Your task to perform on an android device: empty trash in the gmail app Image 0: 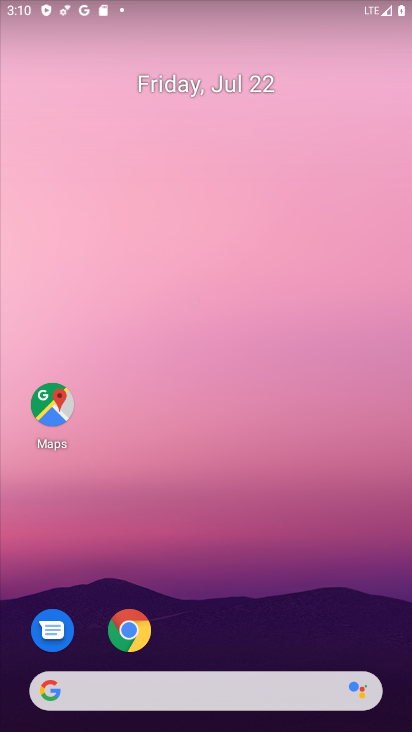
Step 0: drag from (193, 697) to (166, 337)
Your task to perform on an android device: empty trash in the gmail app Image 1: 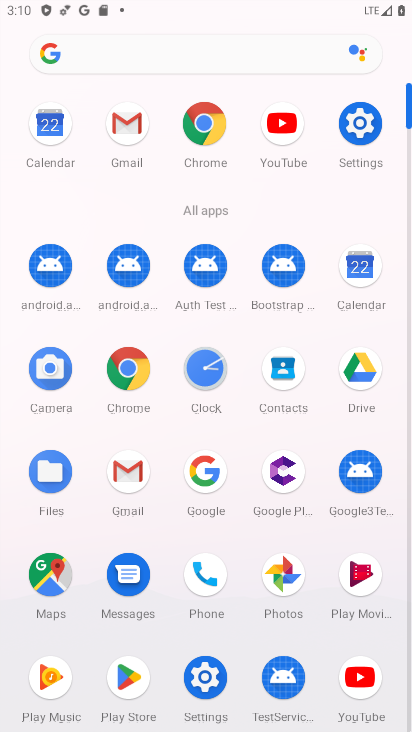
Step 1: click (127, 479)
Your task to perform on an android device: empty trash in the gmail app Image 2: 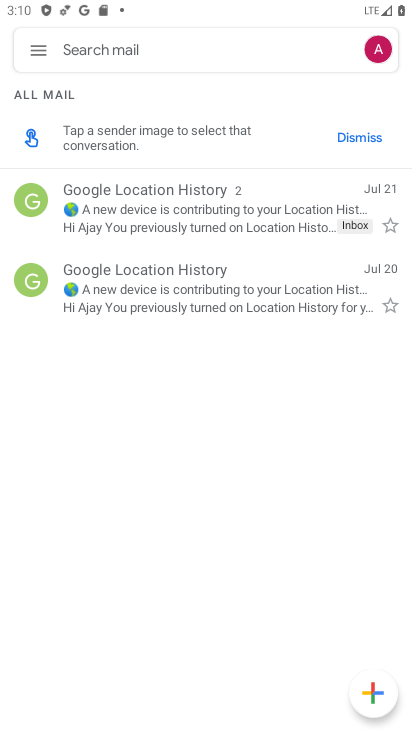
Step 2: click (34, 46)
Your task to perform on an android device: empty trash in the gmail app Image 3: 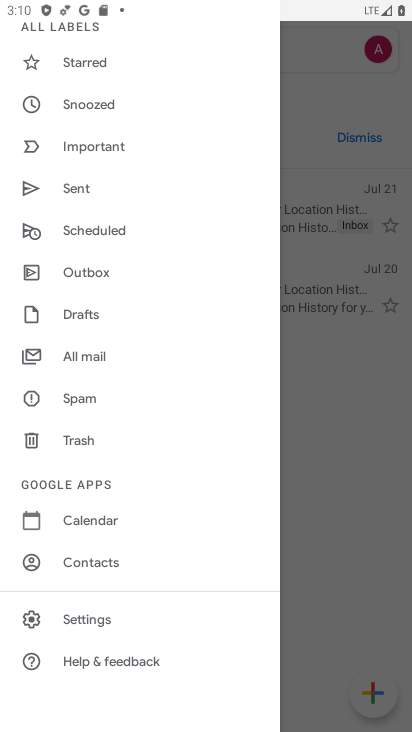
Step 3: click (79, 439)
Your task to perform on an android device: empty trash in the gmail app Image 4: 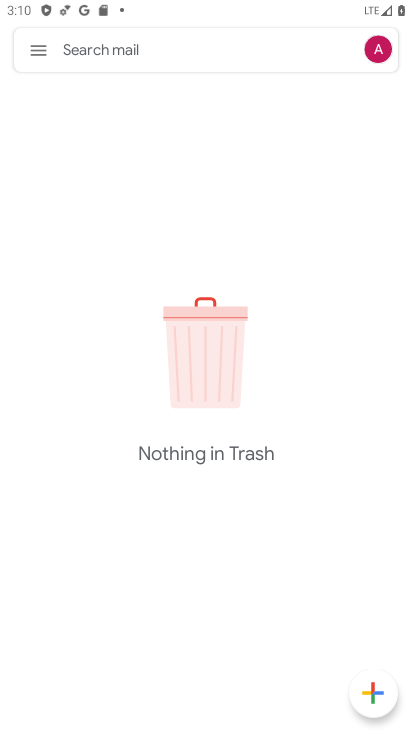
Step 4: task complete